Your task to perform on an android device: allow notifications from all sites in the chrome app Image 0: 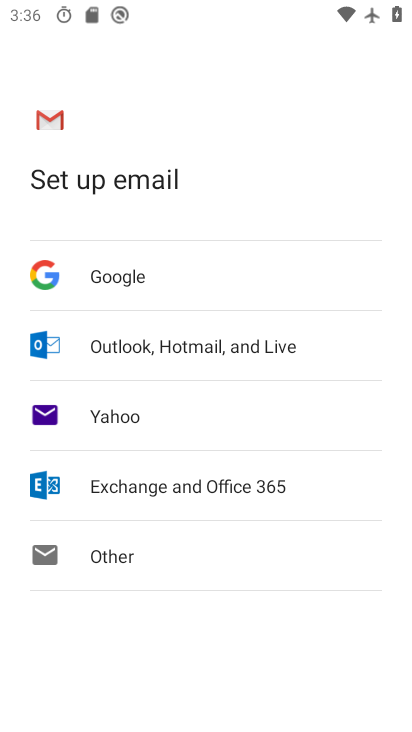
Step 0: press back button
Your task to perform on an android device: allow notifications from all sites in the chrome app Image 1: 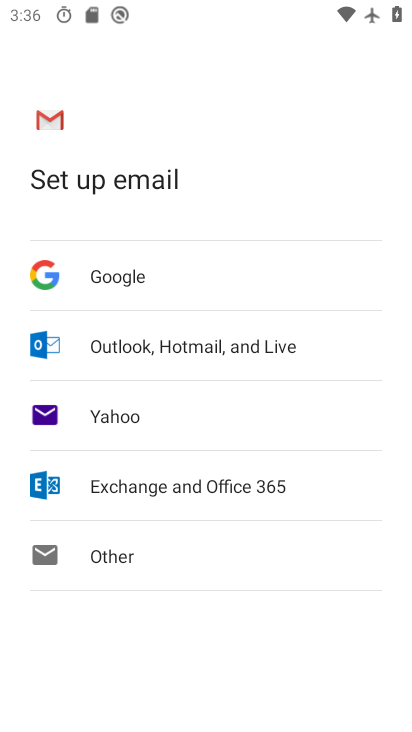
Step 1: press back button
Your task to perform on an android device: allow notifications from all sites in the chrome app Image 2: 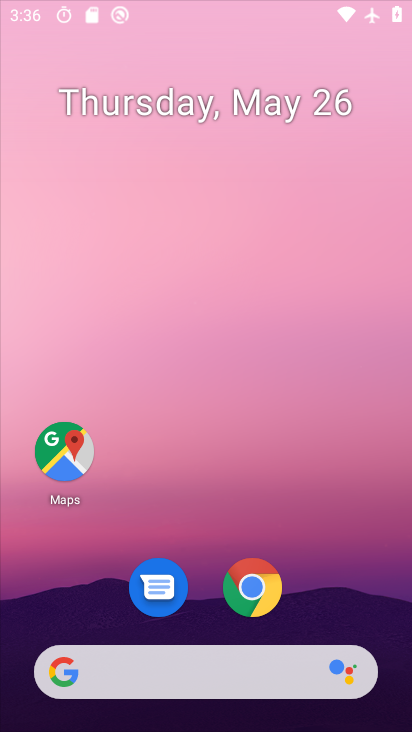
Step 2: press back button
Your task to perform on an android device: allow notifications from all sites in the chrome app Image 3: 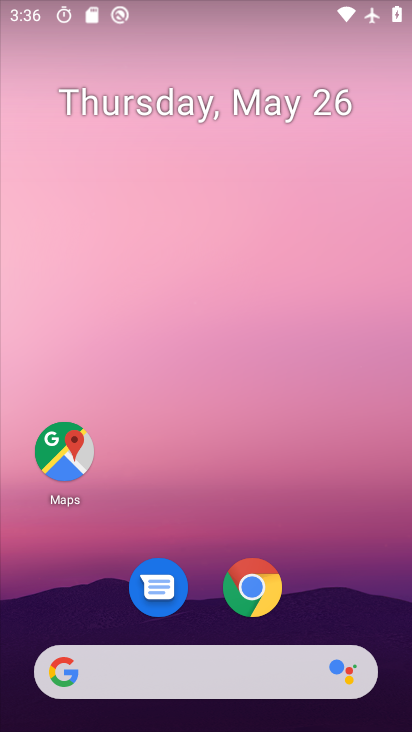
Step 3: drag from (152, 37) to (297, 28)
Your task to perform on an android device: allow notifications from all sites in the chrome app Image 4: 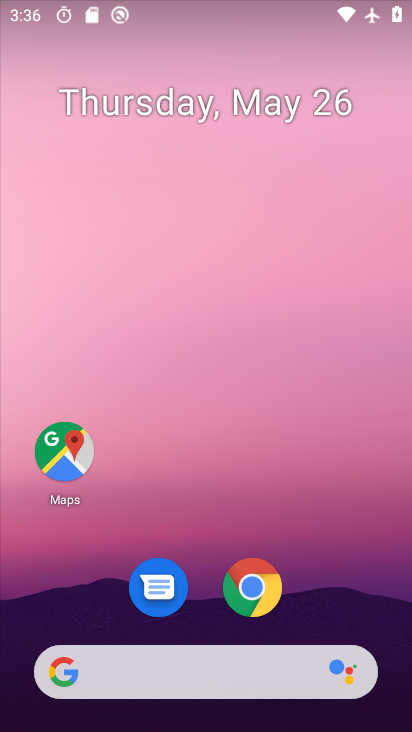
Step 4: drag from (138, 109) to (138, 18)
Your task to perform on an android device: allow notifications from all sites in the chrome app Image 5: 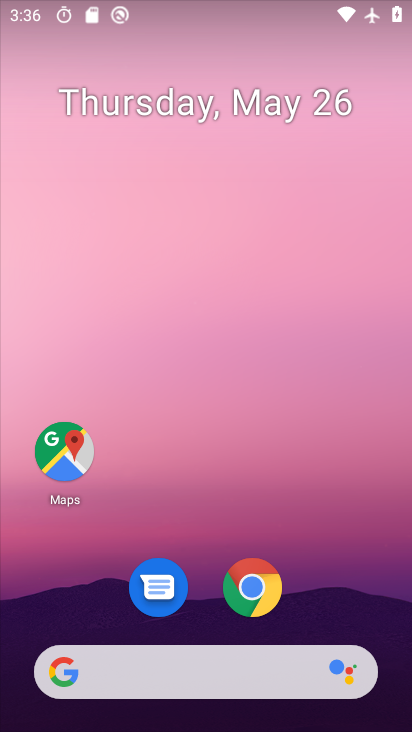
Step 5: drag from (185, 572) to (57, 49)
Your task to perform on an android device: allow notifications from all sites in the chrome app Image 6: 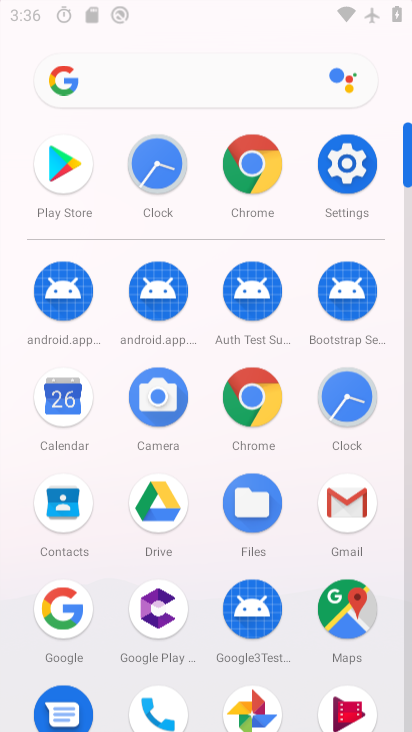
Step 6: drag from (239, 451) to (219, 20)
Your task to perform on an android device: allow notifications from all sites in the chrome app Image 7: 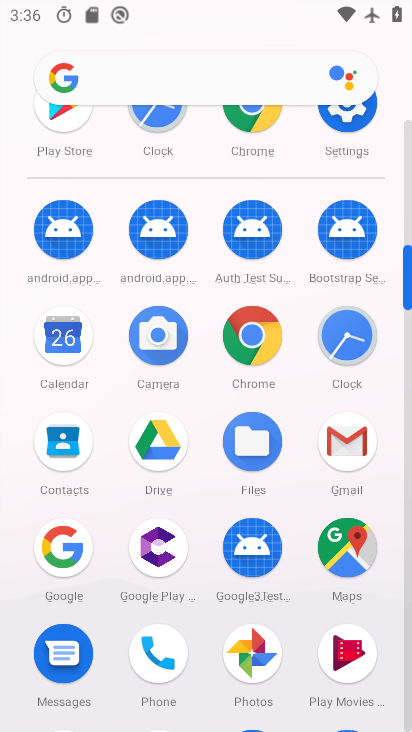
Step 7: click (241, 324)
Your task to perform on an android device: allow notifications from all sites in the chrome app Image 8: 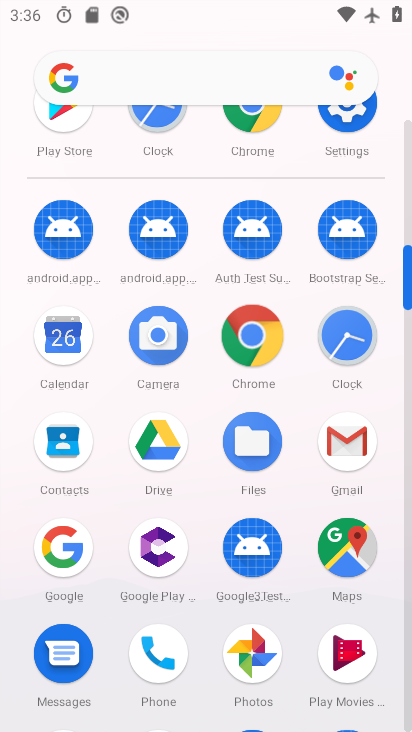
Step 8: click (243, 326)
Your task to perform on an android device: allow notifications from all sites in the chrome app Image 9: 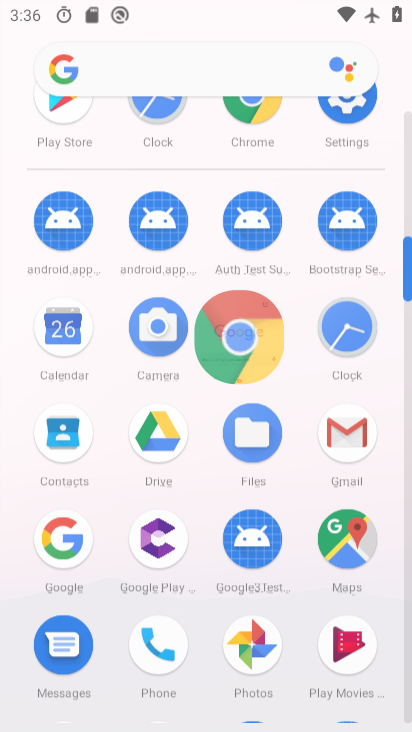
Step 9: click (253, 327)
Your task to perform on an android device: allow notifications from all sites in the chrome app Image 10: 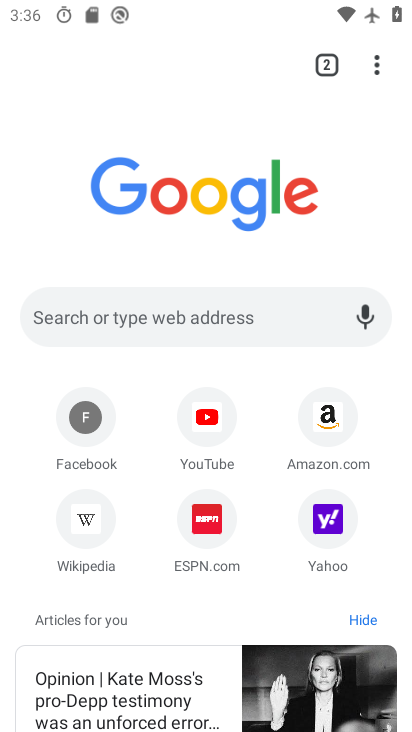
Step 10: click (377, 63)
Your task to perform on an android device: allow notifications from all sites in the chrome app Image 11: 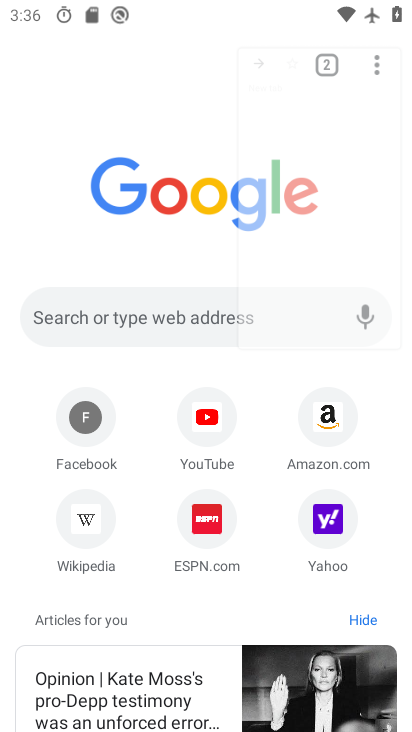
Step 11: click (377, 63)
Your task to perform on an android device: allow notifications from all sites in the chrome app Image 12: 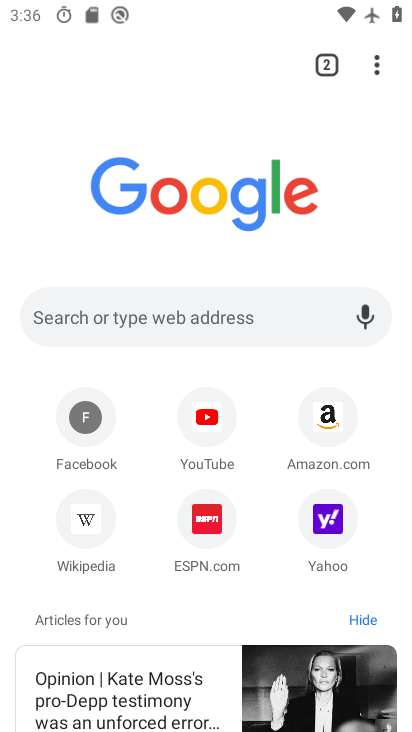
Step 12: click (377, 64)
Your task to perform on an android device: allow notifications from all sites in the chrome app Image 13: 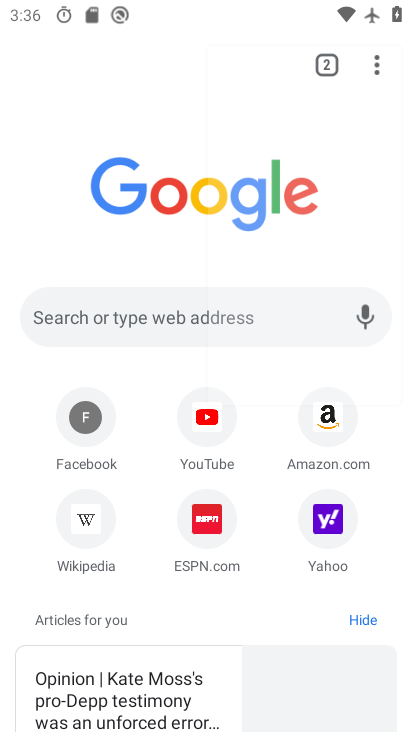
Step 13: click (377, 64)
Your task to perform on an android device: allow notifications from all sites in the chrome app Image 14: 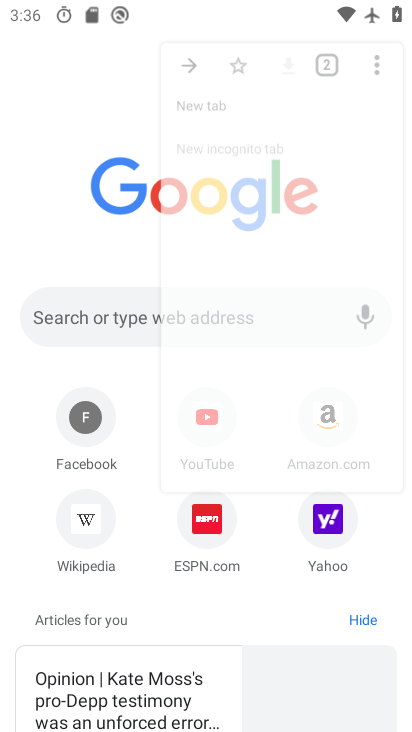
Step 14: click (377, 64)
Your task to perform on an android device: allow notifications from all sites in the chrome app Image 15: 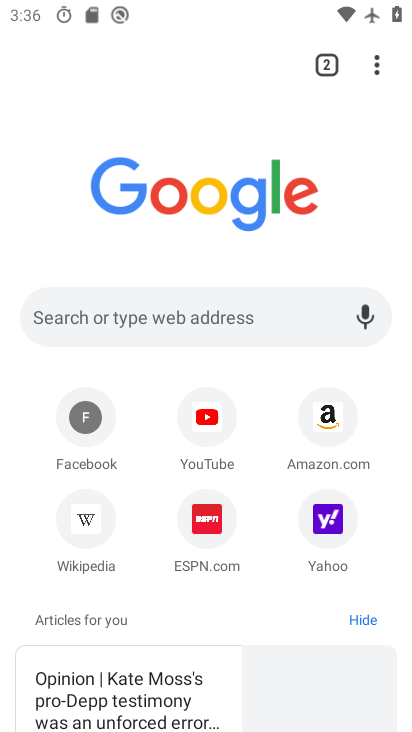
Step 15: click (377, 64)
Your task to perform on an android device: allow notifications from all sites in the chrome app Image 16: 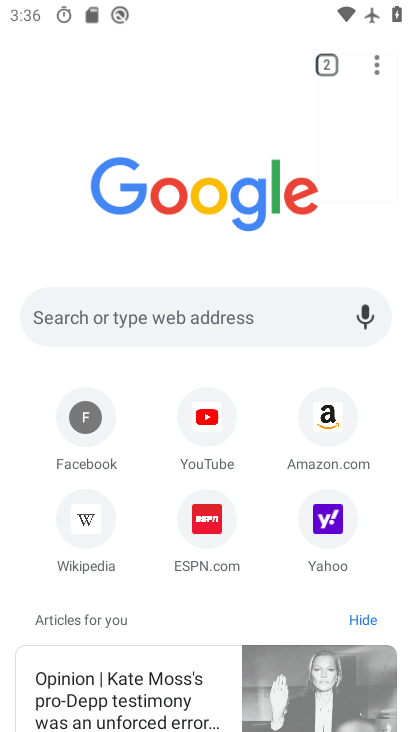
Step 16: drag from (377, 64) to (1, 512)
Your task to perform on an android device: allow notifications from all sites in the chrome app Image 17: 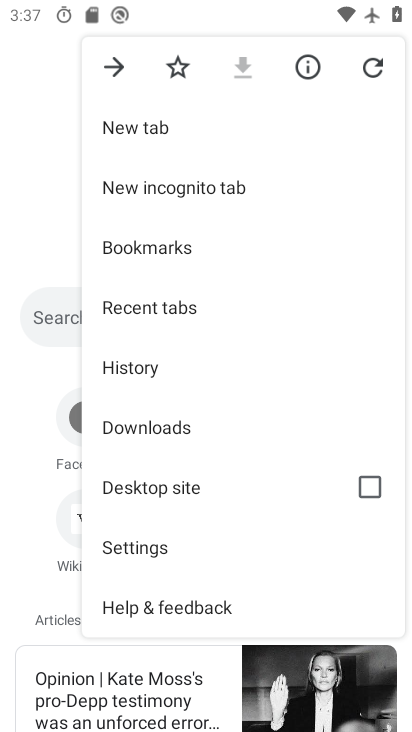
Step 17: click (130, 541)
Your task to perform on an android device: allow notifications from all sites in the chrome app Image 18: 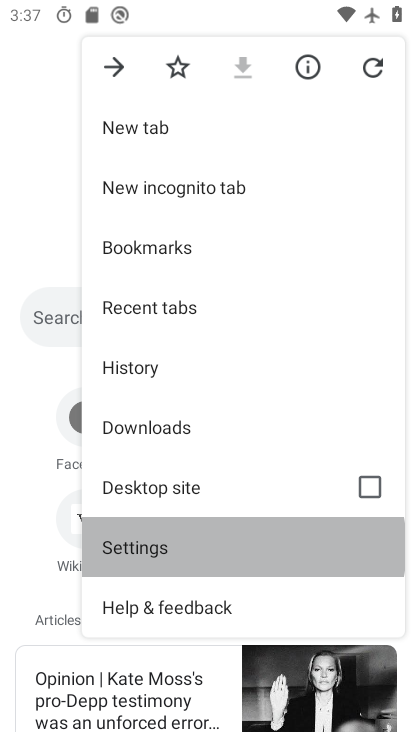
Step 18: click (130, 542)
Your task to perform on an android device: allow notifications from all sites in the chrome app Image 19: 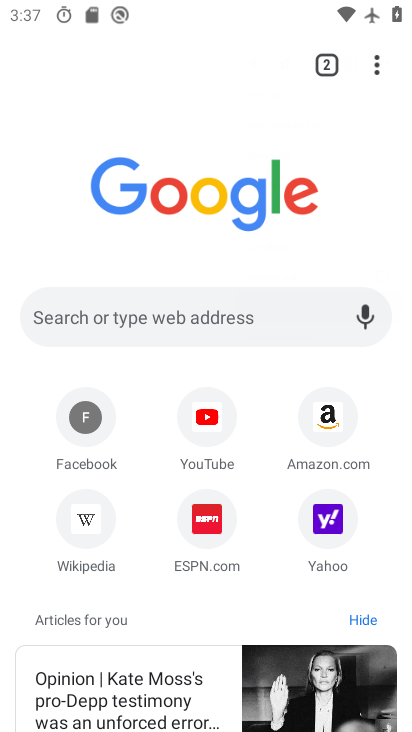
Step 19: click (131, 543)
Your task to perform on an android device: allow notifications from all sites in the chrome app Image 20: 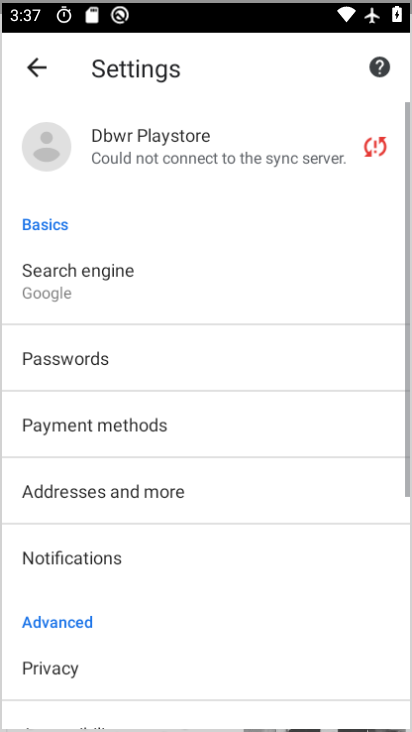
Step 20: click (131, 543)
Your task to perform on an android device: allow notifications from all sites in the chrome app Image 21: 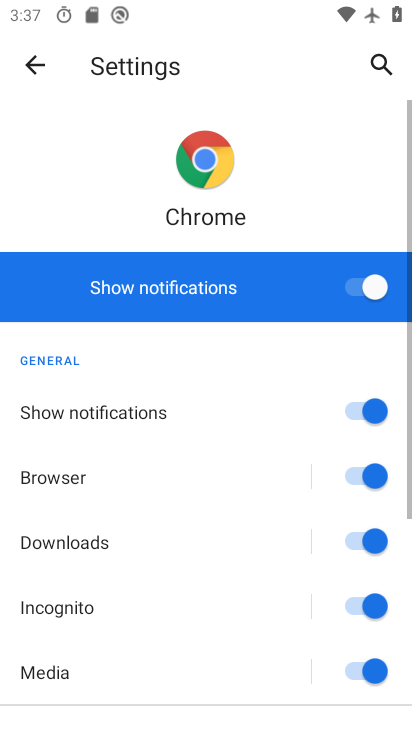
Step 21: click (35, 65)
Your task to perform on an android device: allow notifications from all sites in the chrome app Image 22: 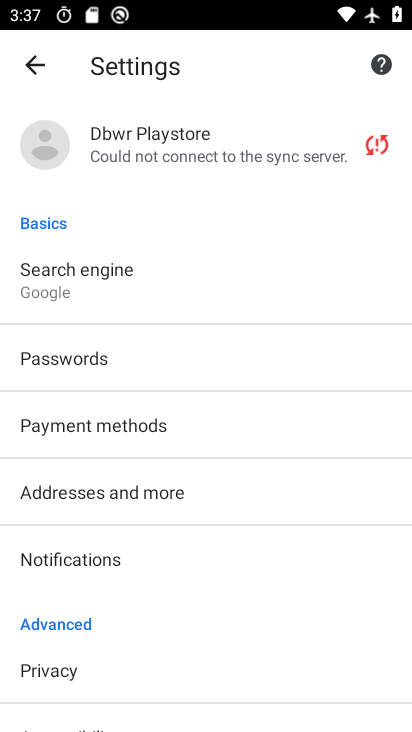
Step 22: drag from (91, 582) to (85, 299)
Your task to perform on an android device: allow notifications from all sites in the chrome app Image 23: 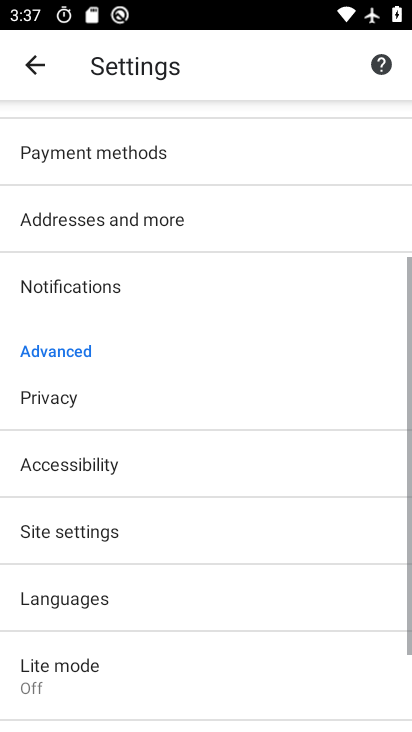
Step 23: drag from (88, 496) to (88, 274)
Your task to perform on an android device: allow notifications from all sites in the chrome app Image 24: 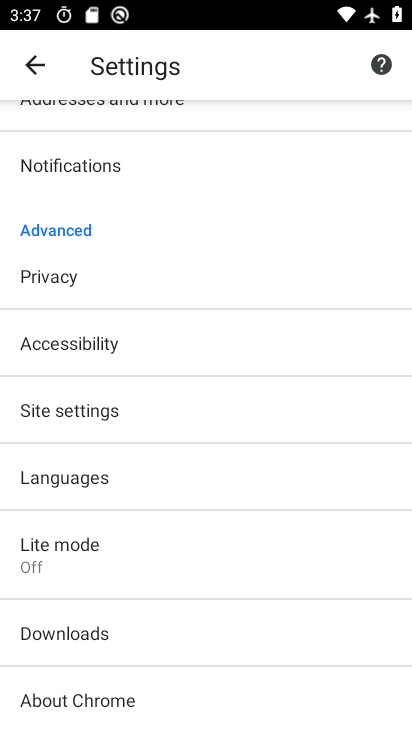
Step 24: click (60, 159)
Your task to perform on an android device: allow notifications from all sites in the chrome app Image 25: 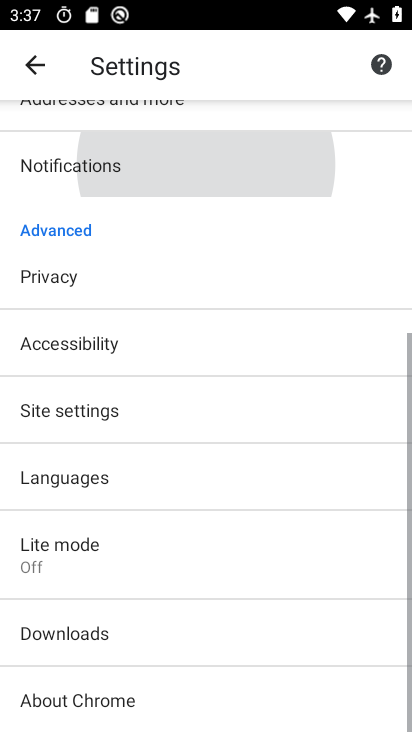
Step 25: click (60, 159)
Your task to perform on an android device: allow notifications from all sites in the chrome app Image 26: 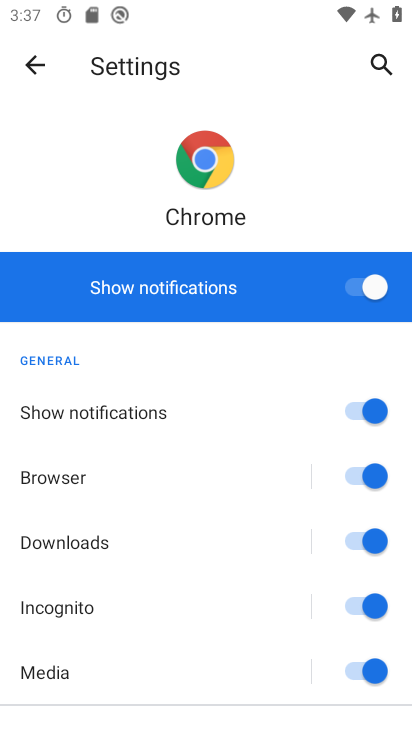
Step 26: click (29, 64)
Your task to perform on an android device: allow notifications from all sites in the chrome app Image 27: 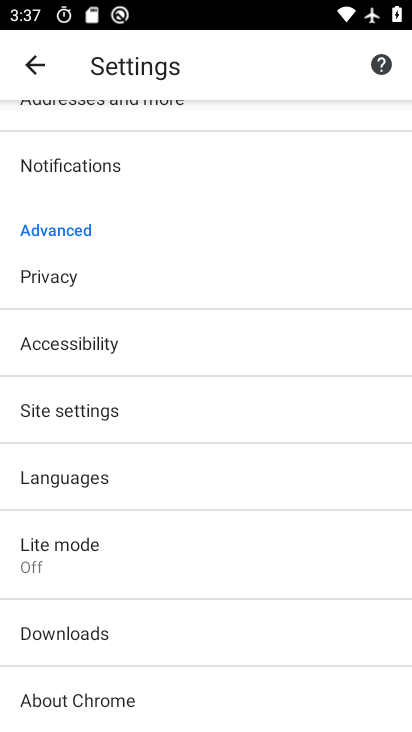
Step 27: click (52, 411)
Your task to perform on an android device: allow notifications from all sites in the chrome app Image 28: 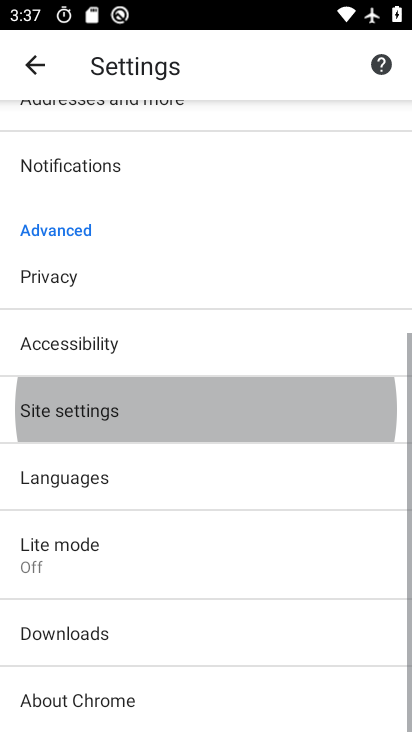
Step 28: click (63, 403)
Your task to perform on an android device: allow notifications from all sites in the chrome app Image 29: 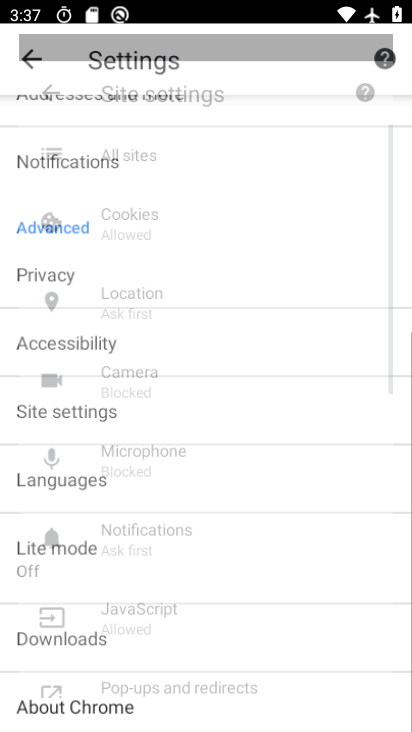
Step 29: click (63, 403)
Your task to perform on an android device: allow notifications from all sites in the chrome app Image 30: 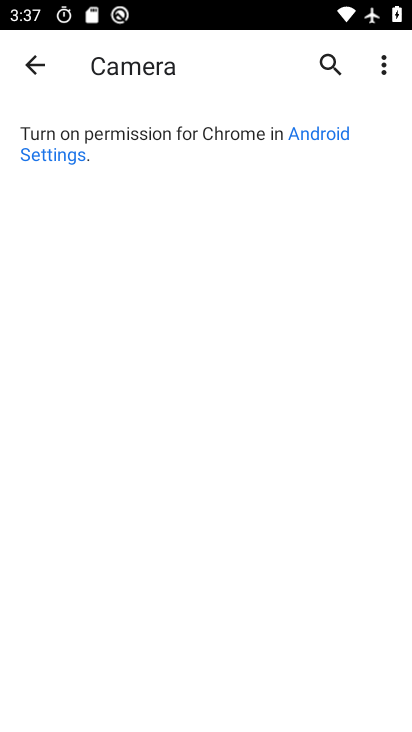
Step 30: click (37, 72)
Your task to perform on an android device: allow notifications from all sites in the chrome app Image 31: 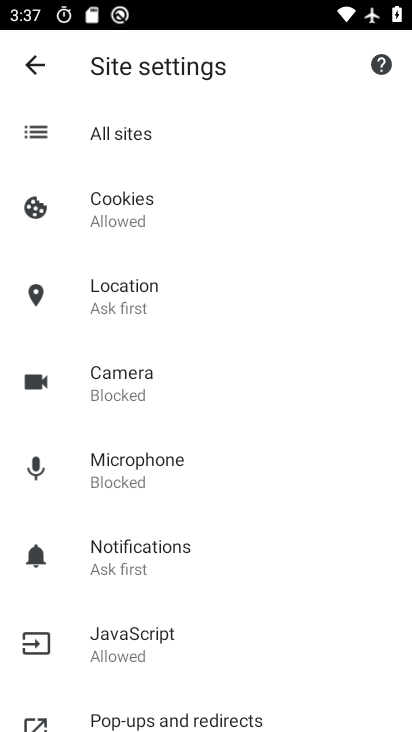
Step 31: click (120, 136)
Your task to perform on an android device: allow notifications from all sites in the chrome app Image 32: 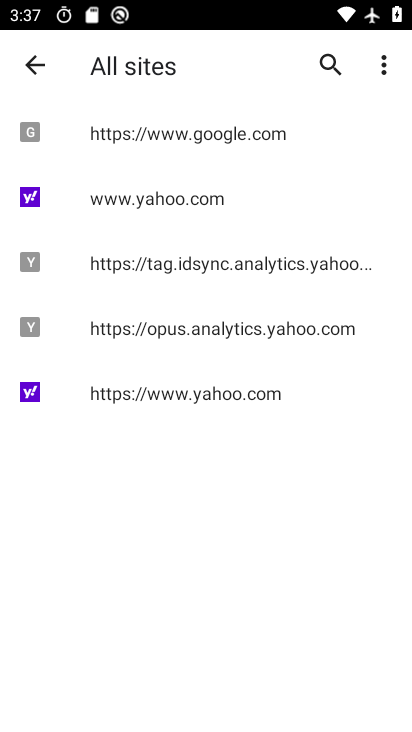
Step 32: click (135, 118)
Your task to perform on an android device: allow notifications from all sites in the chrome app Image 33: 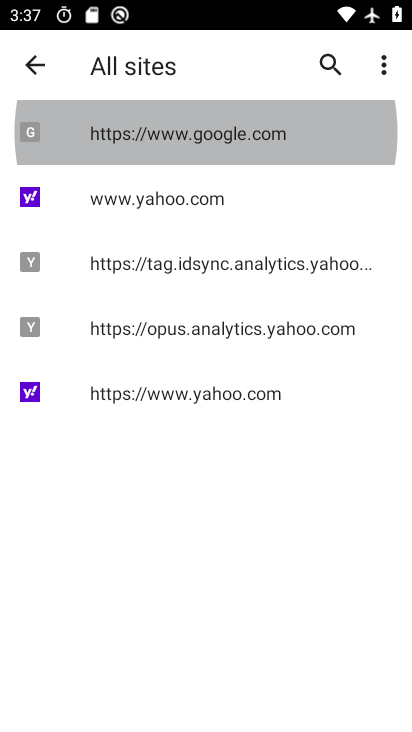
Step 33: click (148, 147)
Your task to perform on an android device: allow notifications from all sites in the chrome app Image 34: 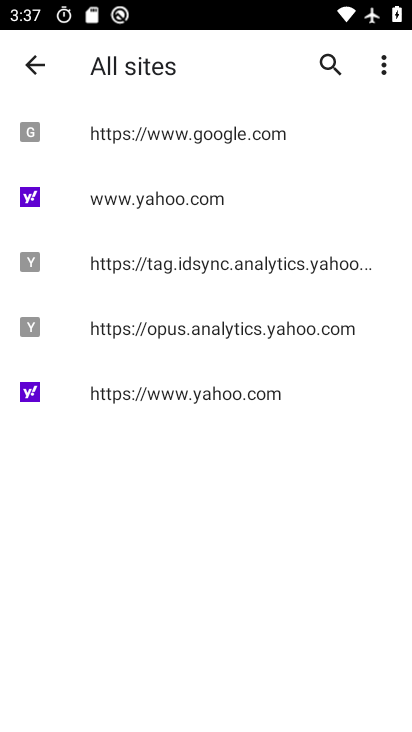
Step 34: click (148, 147)
Your task to perform on an android device: allow notifications from all sites in the chrome app Image 35: 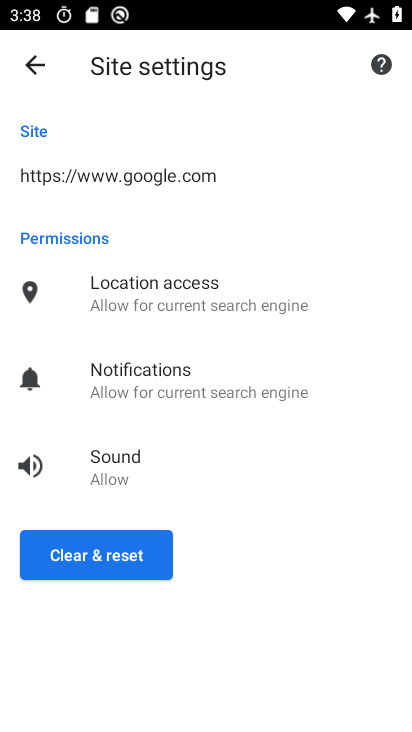
Step 35: task complete